Your task to perform on an android device: open wifi settings Image 0: 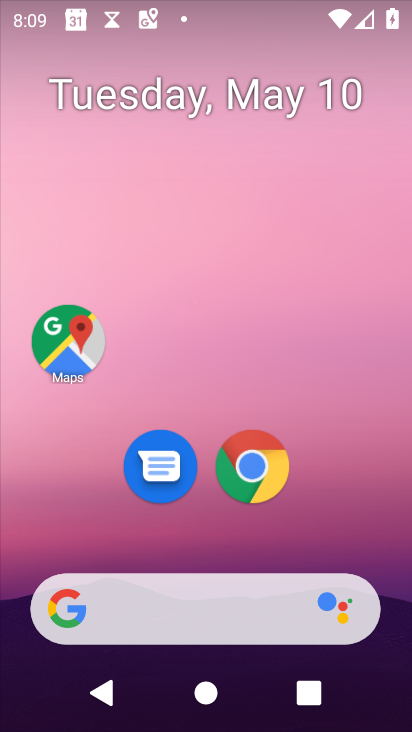
Step 0: drag from (298, 556) to (181, 10)
Your task to perform on an android device: open wifi settings Image 1: 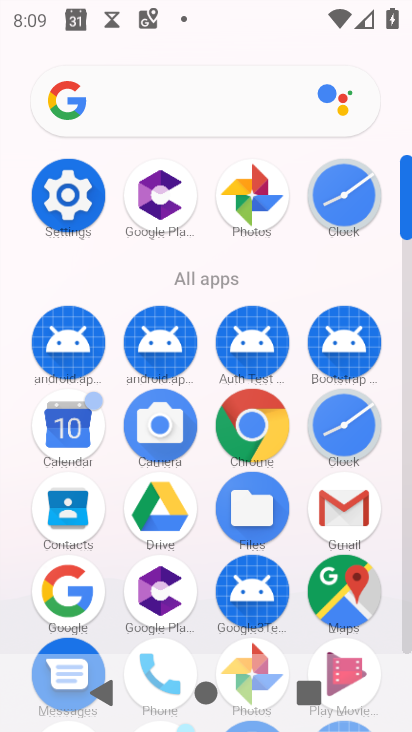
Step 1: click (73, 179)
Your task to perform on an android device: open wifi settings Image 2: 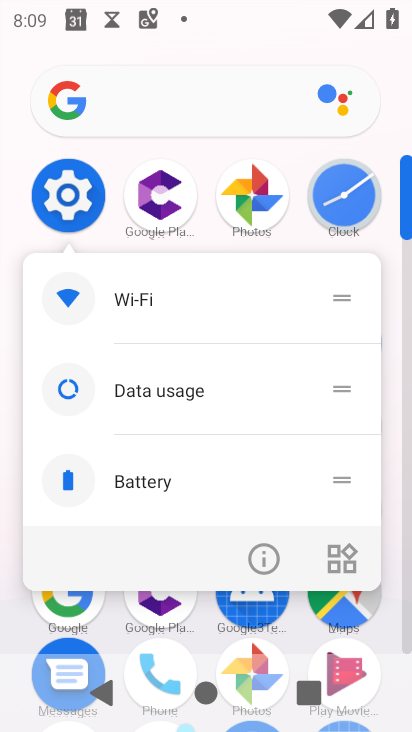
Step 2: click (78, 212)
Your task to perform on an android device: open wifi settings Image 3: 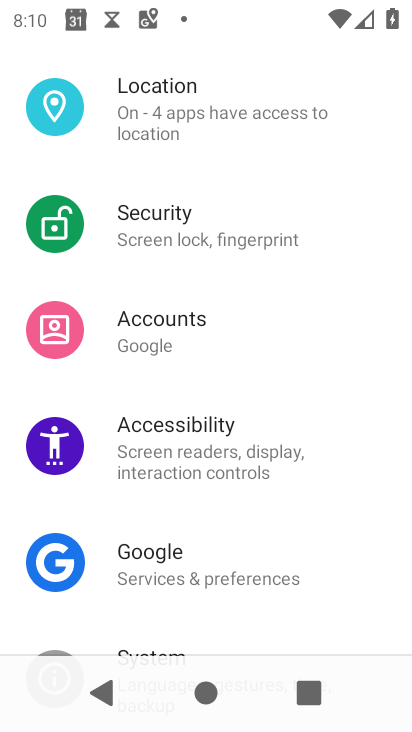
Step 3: drag from (129, 284) to (180, 363)
Your task to perform on an android device: open wifi settings Image 4: 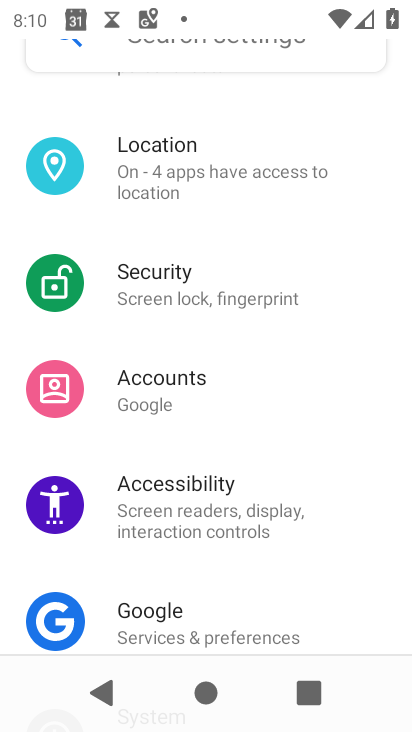
Step 4: drag from (176, 303) to (211, 414)
Your task to perform on an android device: open wifi settings Image 5: 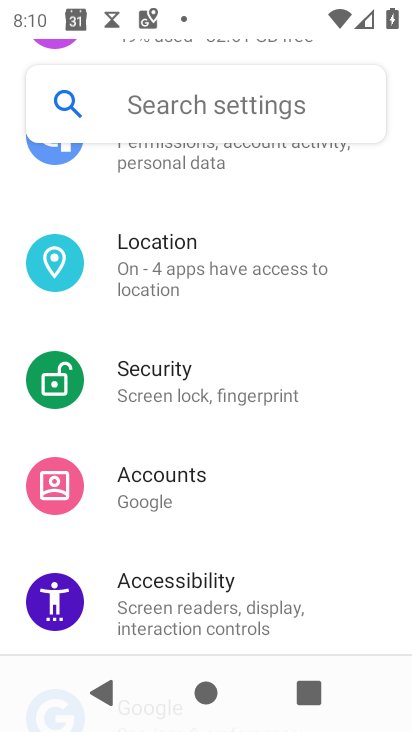
Step 5: drag from (199, 334) to (240, 469)
Your task to perform on an android device: open wifi settings Image 6: 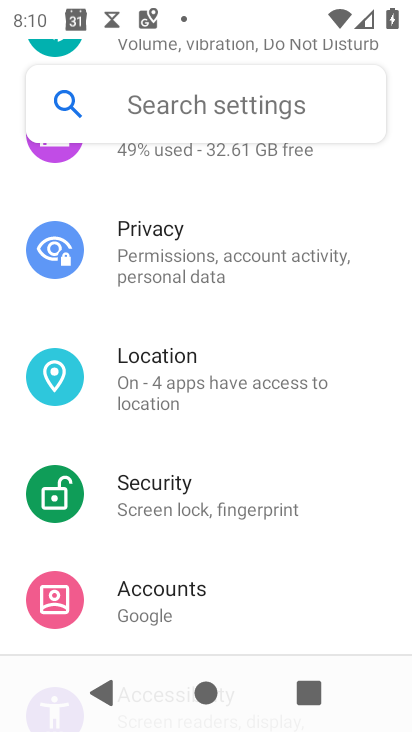
Step 6: drag from (200, 270) to (222, 414)
Your task to perform on an android device: open wifi settings Image 7: 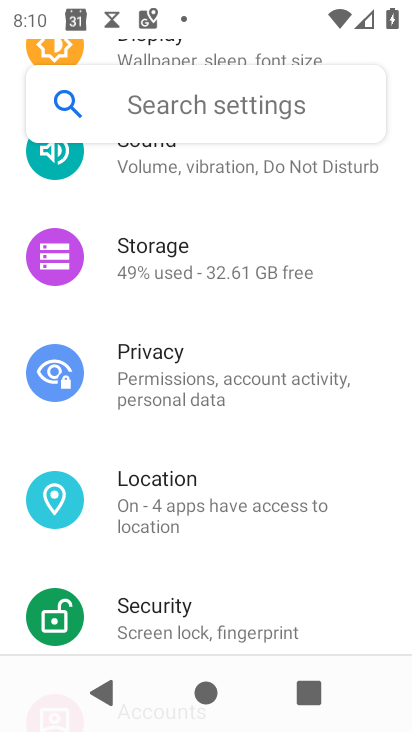
Step 7: drag from (231, 234) to (243, 357)
Your task to perform on an android device: open wifi settings Image 8: 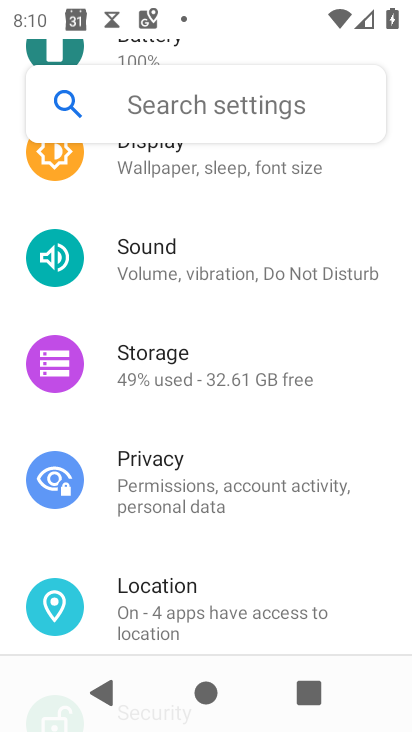
Step 8: drag from (245, 231) to (278, 359)
Your task to perform on an android device: open wifi settings Image 9: 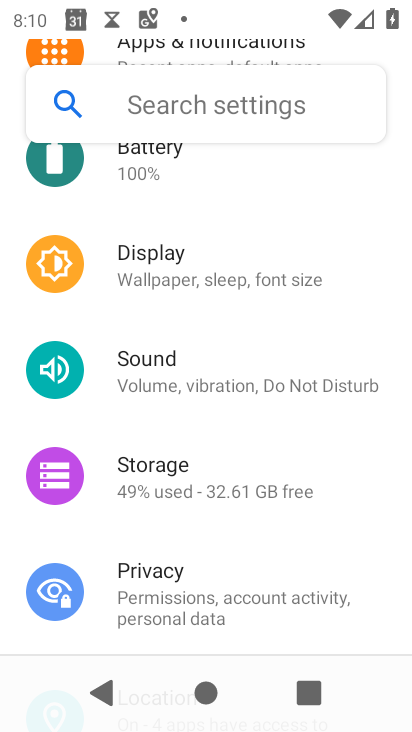
Step 9: drag from (231, 236) to (273, 367)
Your task to perform on an android device: open wifi settings Image 10: 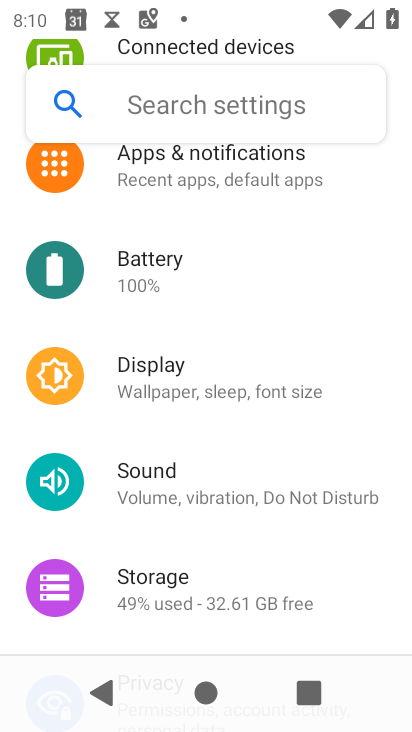
Step 10: drag from (234, 248) to (267, 377)
Your task to perform on an android device: open wifi settings Image 11: 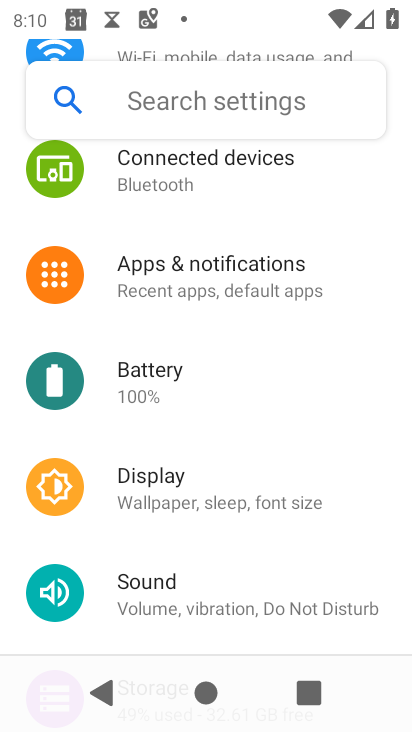
Step 11: drag from (225, 287) to (277, 411)
Your task to perform on an android device: open wifi settings Image 12: 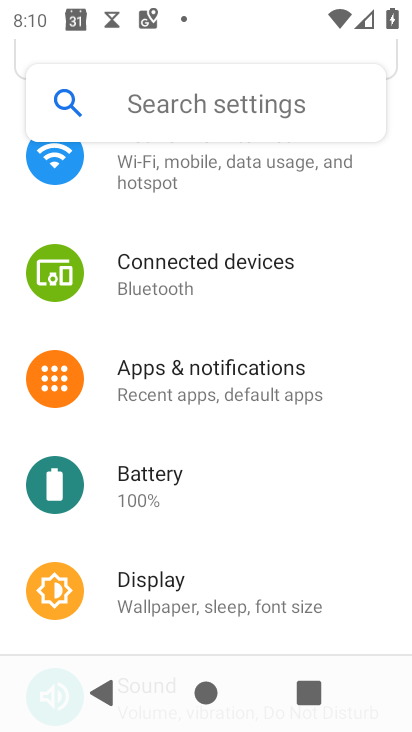
Step 12: drag from (231, 305) to (280, 437)
Your task to perform on an android device: open wifi settings Image 13: 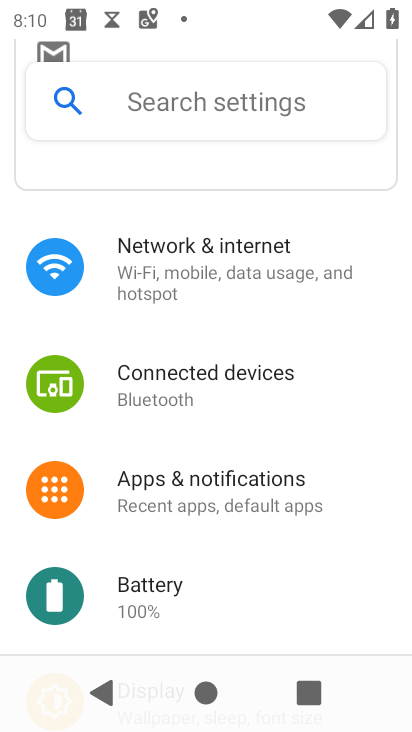
Step 13: click (232, 279)
Your task to perform on an android device: open wifi settings Image 14: 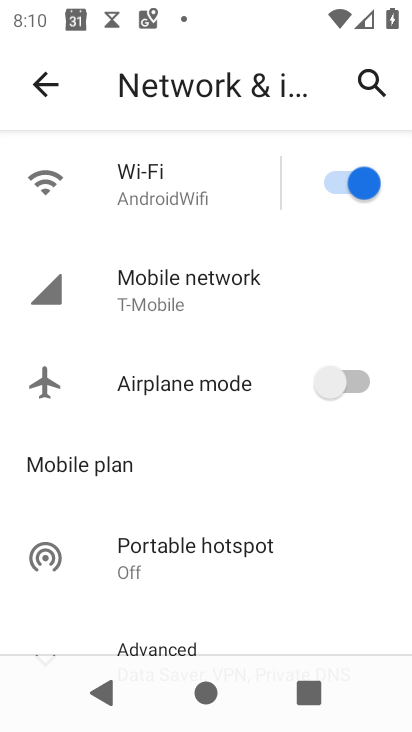
Step 14: click (40, 174)
Your task to perform on an android device: open wifi settings Image 15: 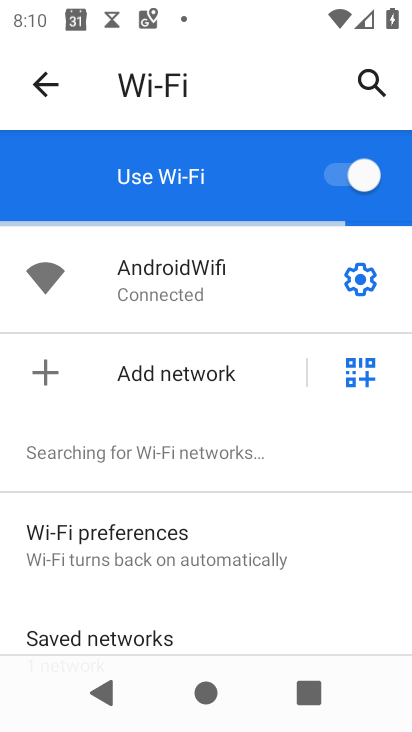
Step 15: task complete